Your task to perform on an android device: Show me productivity apps on the Play Store Image 0: 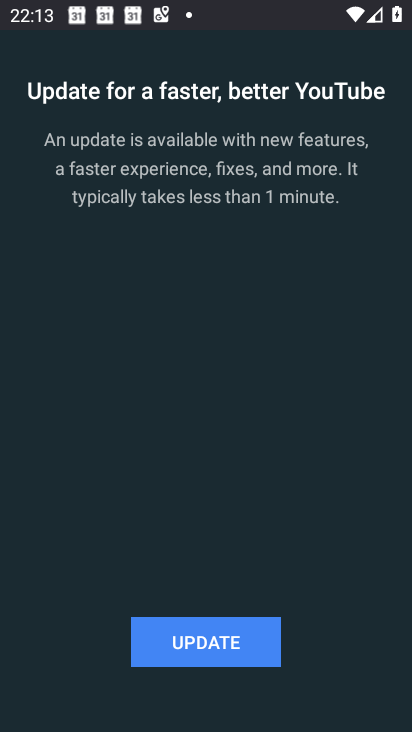
Step 0: press home button
Your task to perform on an android device: Show me productivity apps on the Play Store Image 1: 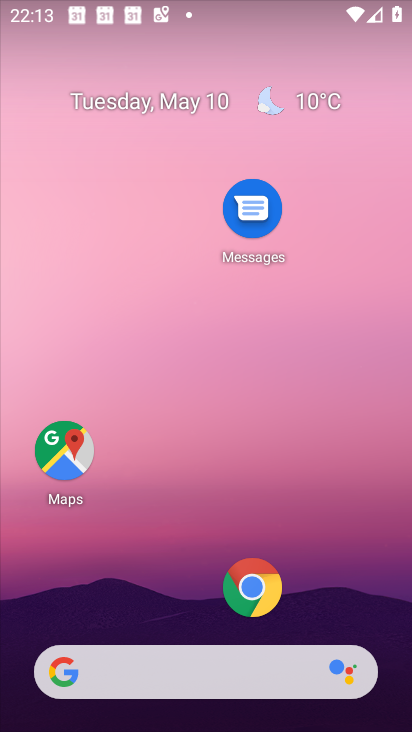
Step 1: drag from (176, 605) to (219, 168)
Your task to perform on an android device: Show me productivity apps on the Play Store Image 2: 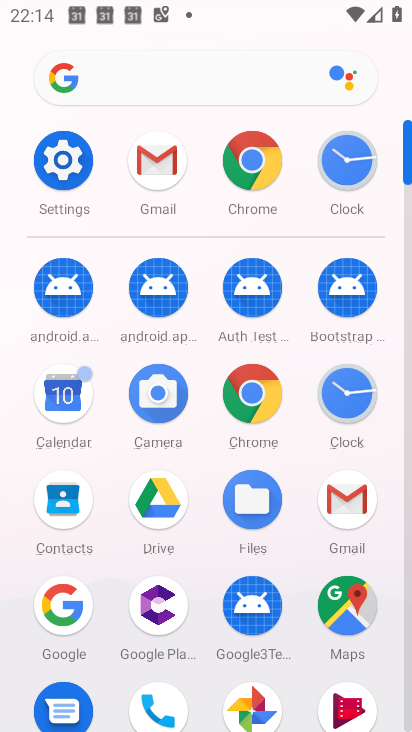
Step 2: drag from (211, 580) to (241, 357)
Your task to perform on an android device: Show me productivity apps on the Play Store Image 3: 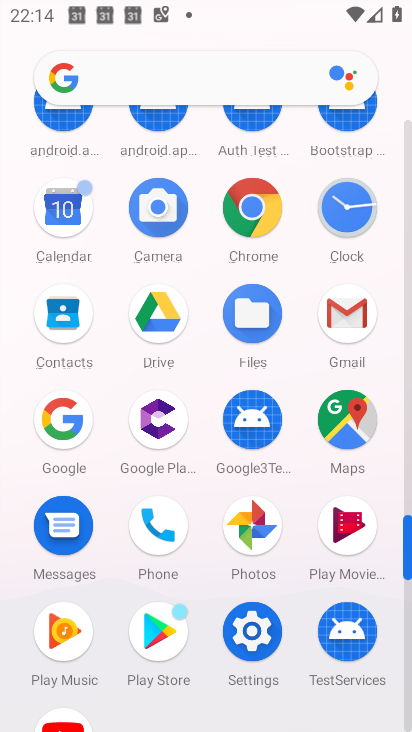
Step 3: click (163, 654)
Your task to perform on an android device: Show me productivity apps on the Play Store Image 4: 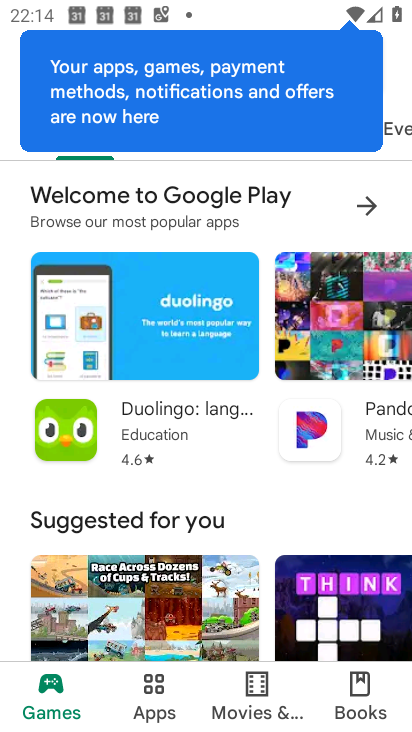
Step 4: click (138, 695)
Your task to perform on an android device: Show me productivity apps on the Play Store Image 5: 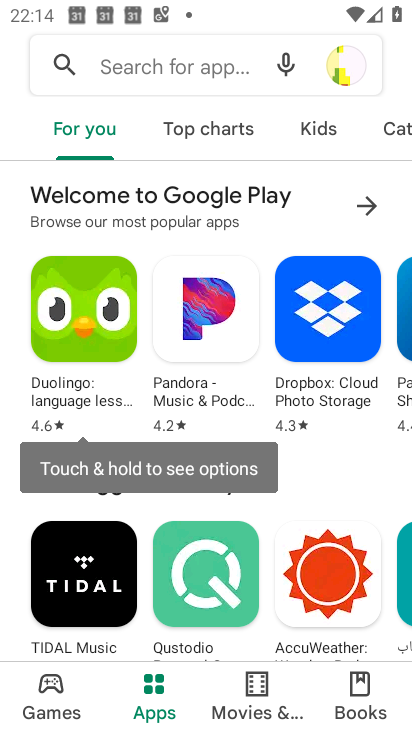
Step 5: drag from (378, 130) to (234, 102)
Your task to perform on an android device: Show me productivity apps on the Play Store Image 6: 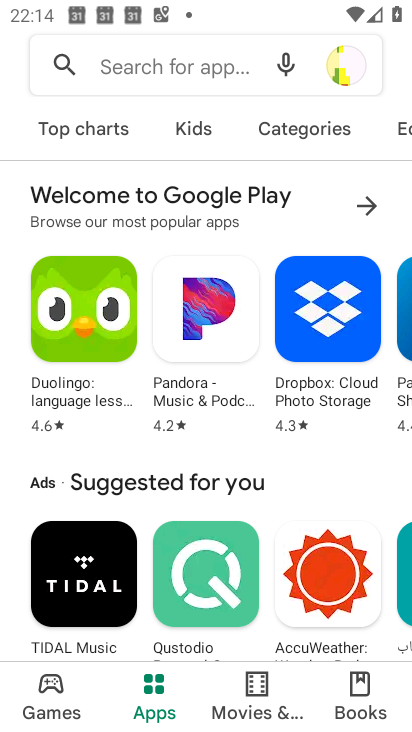
Step 6: click (313, 126)
Your task to perform on an android device: Show me productivity apps on the Play Store Image 7: 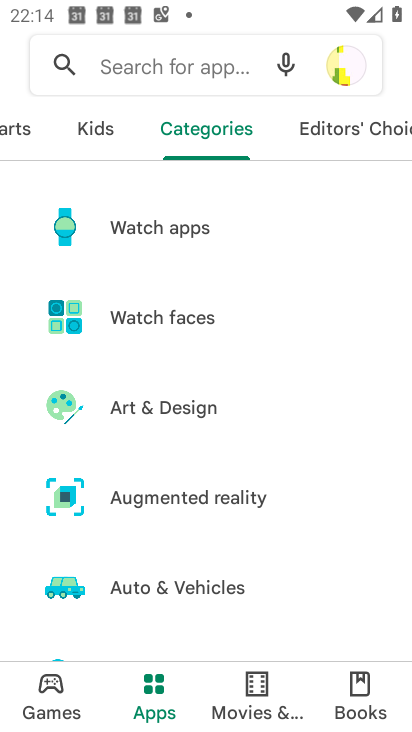
Step 7: drag from (146, 514) to (181, 202)
Your task to perform on an android device: Show me productivity apps on the Play Store Image 8: 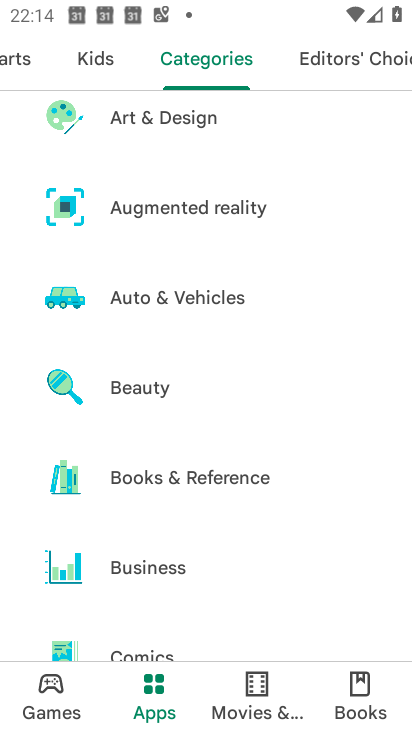
Step 8: drag from (176, 516) to (193, 260)
Your task to perform on an android device: Show me productivity apps on the Play Store Image 9: 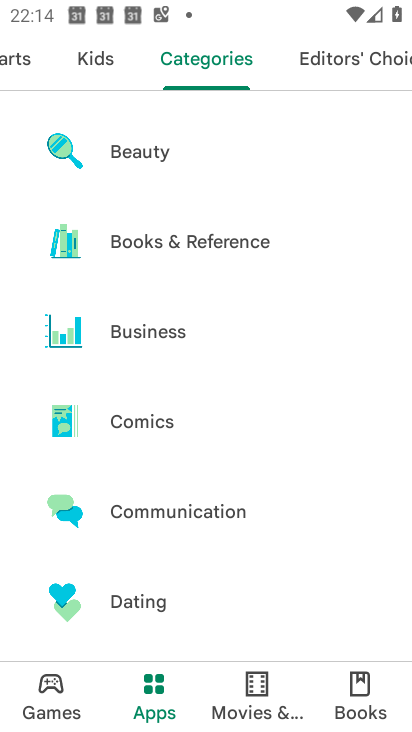
Step 9: drag from (176, 603) to (228, 272)
Your task to perform on an android device: Show me productivity apps on the Play Store Image 10: 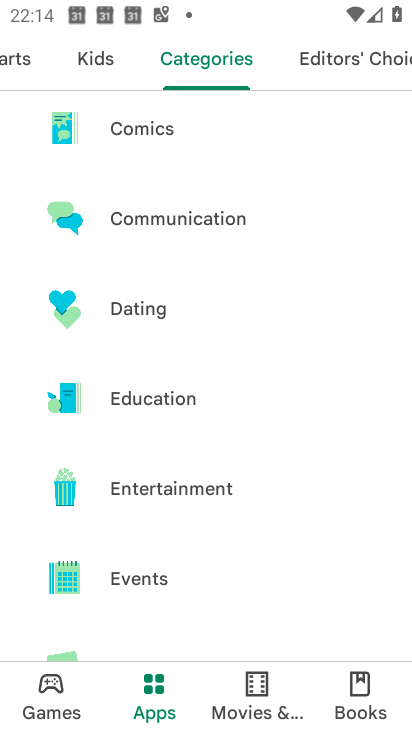
Step 10: drag from (184, 556) to (199, 188)
Your task to perform on an android device: Show me productivity apps on the Play Store Image 11: 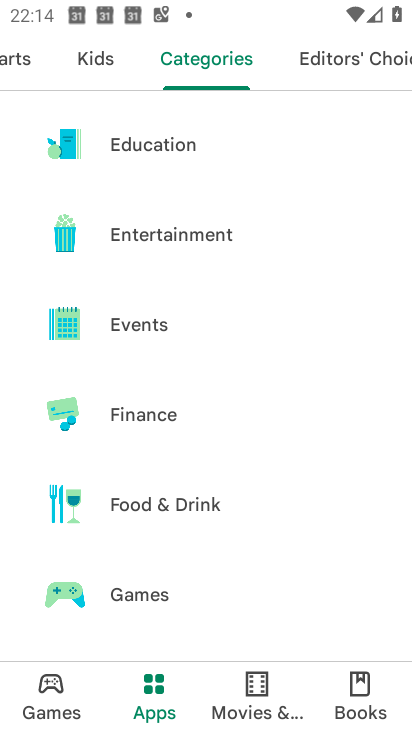
Step 11: drag from (168, 566) to (188, 298)
Your task to perform on an android device: Show me productivity apps on the Play Store Image 12: 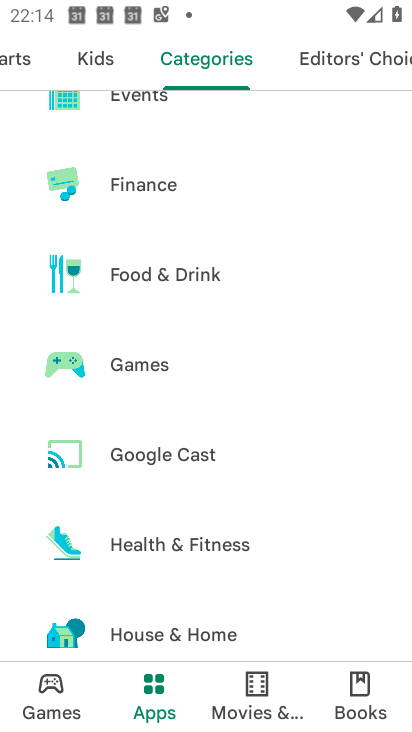
Step 12: drag from (182, 643) to (213, 282)
Your task to perform on an android device: Show me productivity apps on the Play Store Image 13: 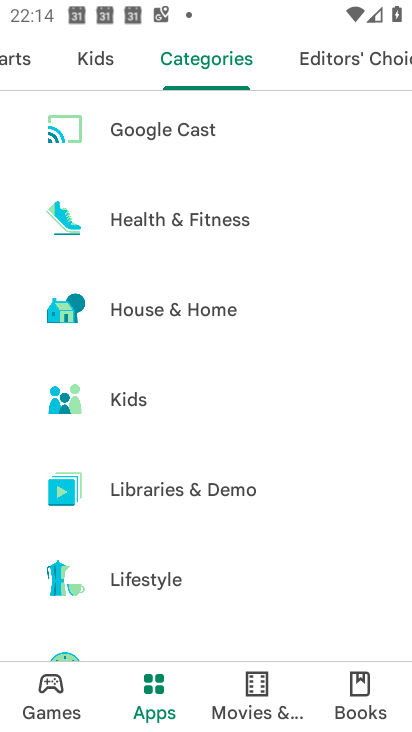
Step 13: drag from (144, 589) to (186, 139)
Your task to perform on an android device: Show me productivity apps on the Play Store Image 14: 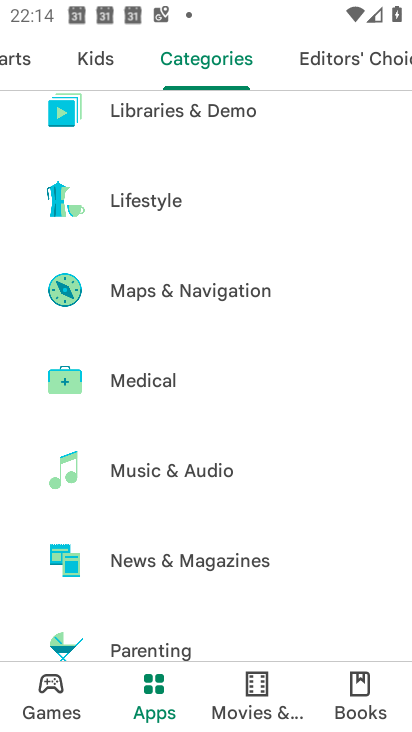
Step 14: drag from (154, 638) to (183, 272)
Your task to perform on an android device: Show me productivity apps on the Play Store Image 15: 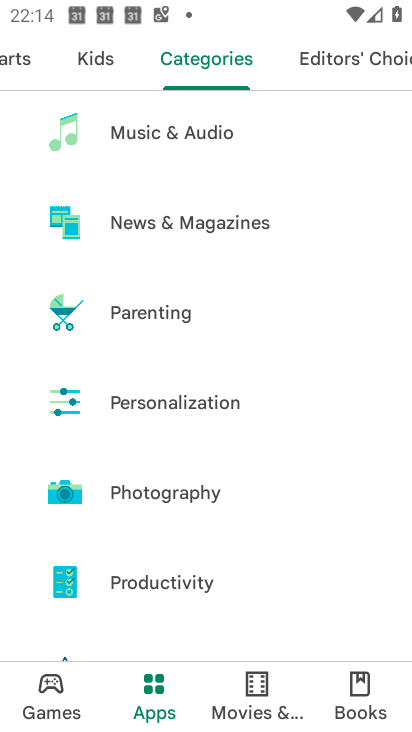
Step 15: click (165, 594)
Your task to perform on an android device: Show me productivity apps on the Play Store Image 16: 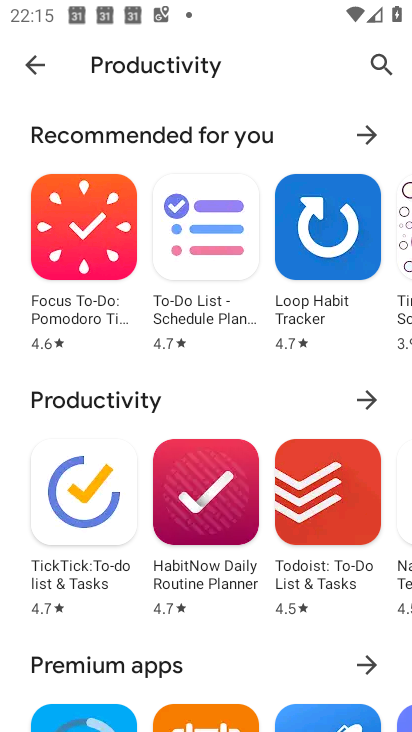
Step 16: task complete